Your task to perform on an android device: Open display settings Image 0: 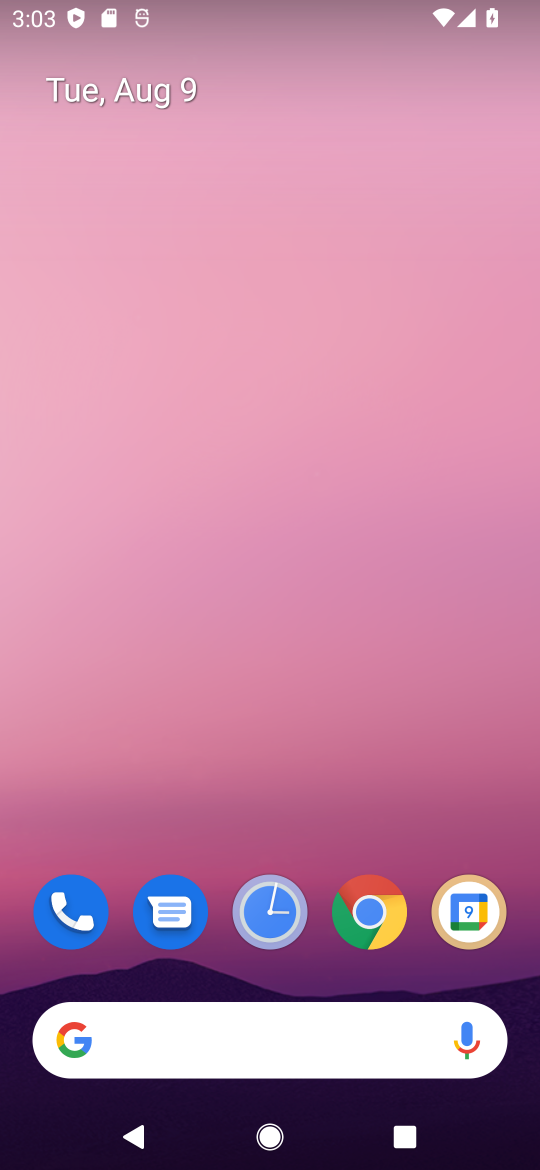
Step 0: drag from (286, 799) to (249, 74)
Your task to perform on an android device: Open display settings Image 1: 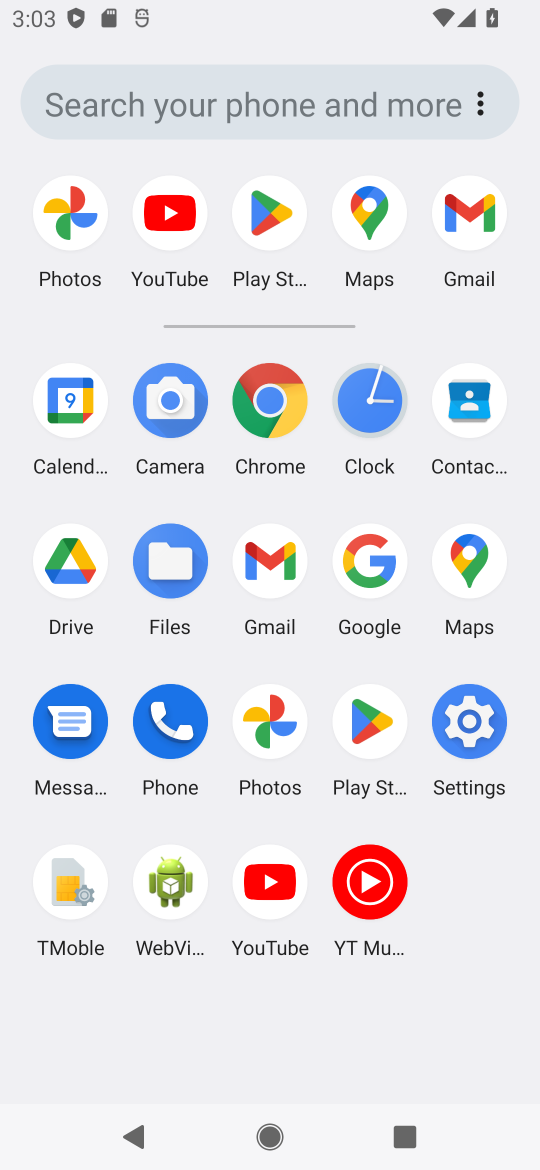
Step 1: click (468, 726)
Your task to perform on an android device: Open display settings Image 2: 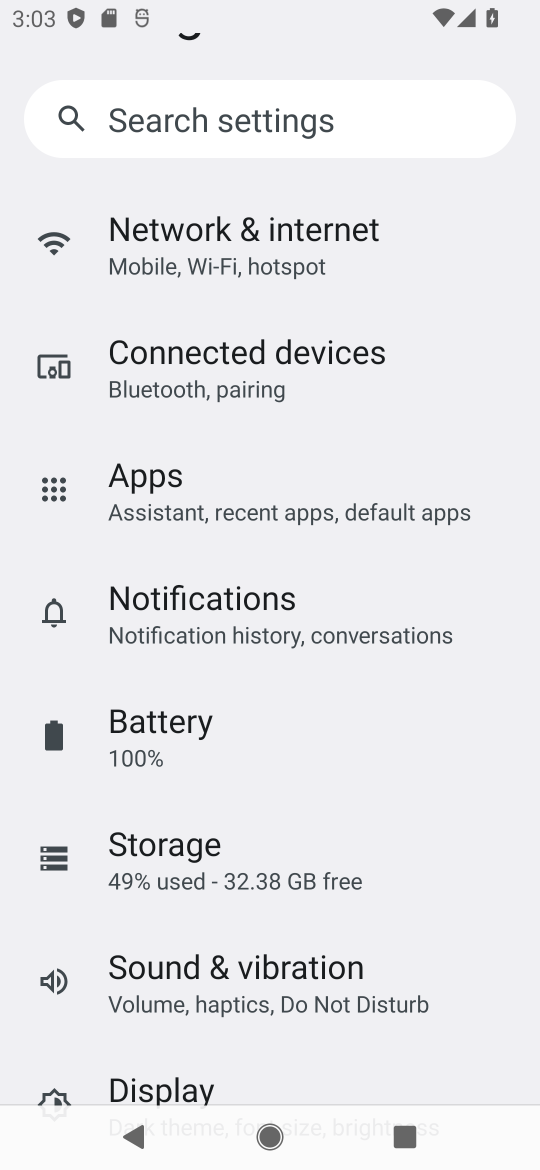
Step 2: drag from (313, 842) to (299, 507)
Your task to perform on an android device: Open display settings Image 3: 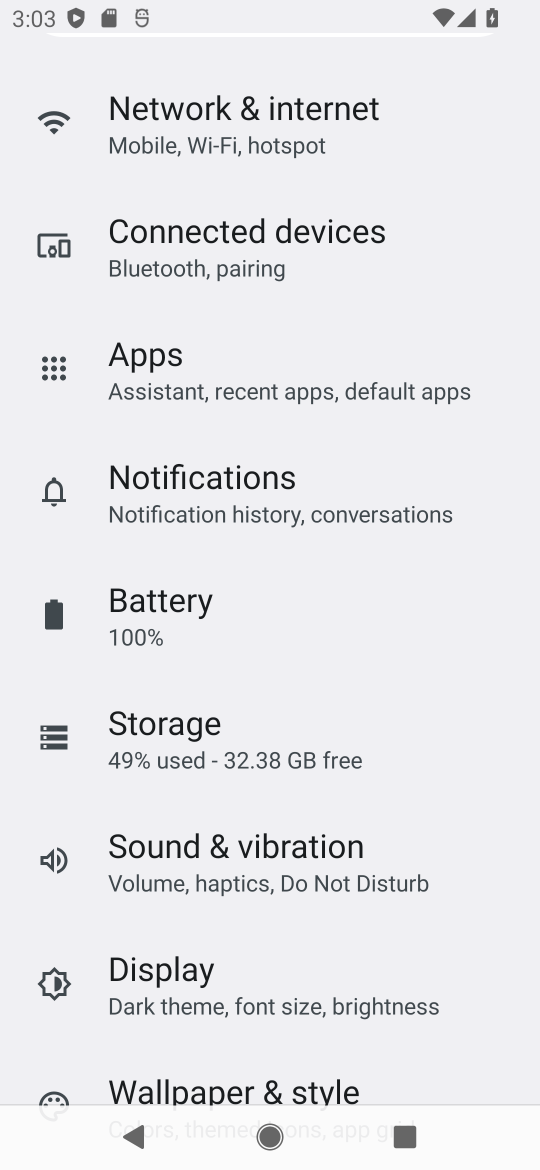
Step 3: click (161, 966)
Your task to perform on an android device: Open display settings Image 4: 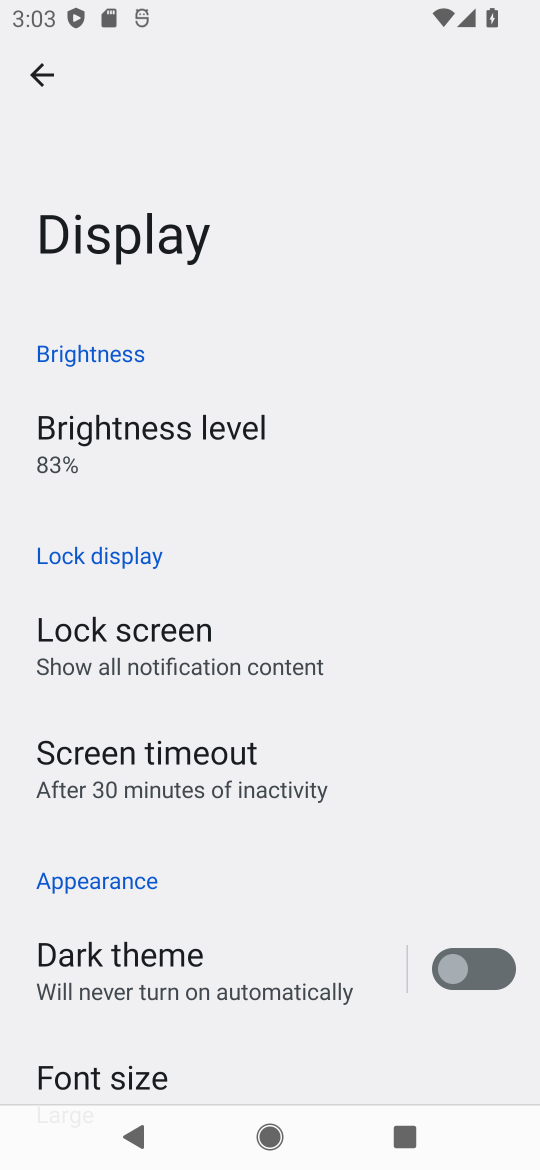
Step 4: task complete